Your task to perform on an android device: What is the recent news? Image 0: 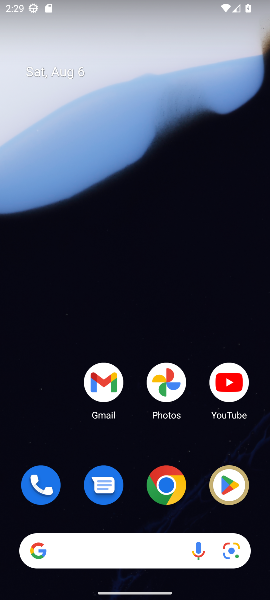
Step 0: press home button
Your task to perform on an android device: What is the recent news? Image 1: 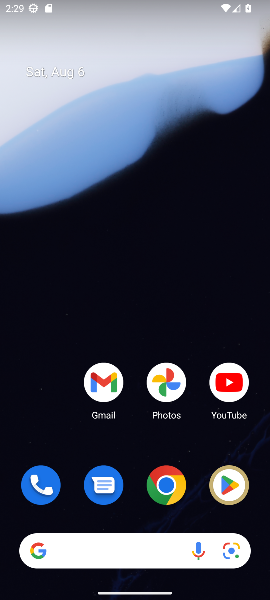
Step 1: task complete